Your task to perform on an android device: visit the assistant section in the google photos Image 0: 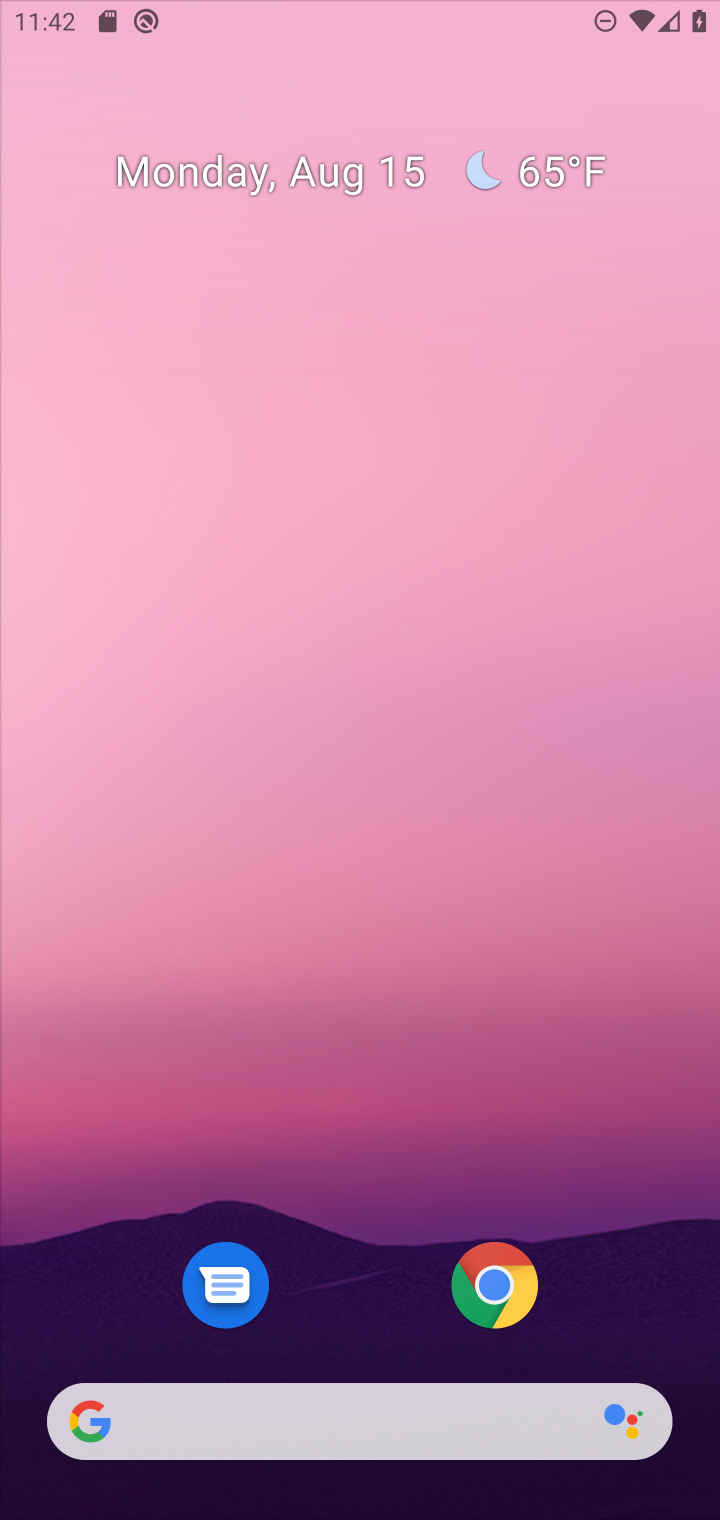
Step 0: press home button
Your task to perform on an android device: visit the assistant section in the google photos Image 1: 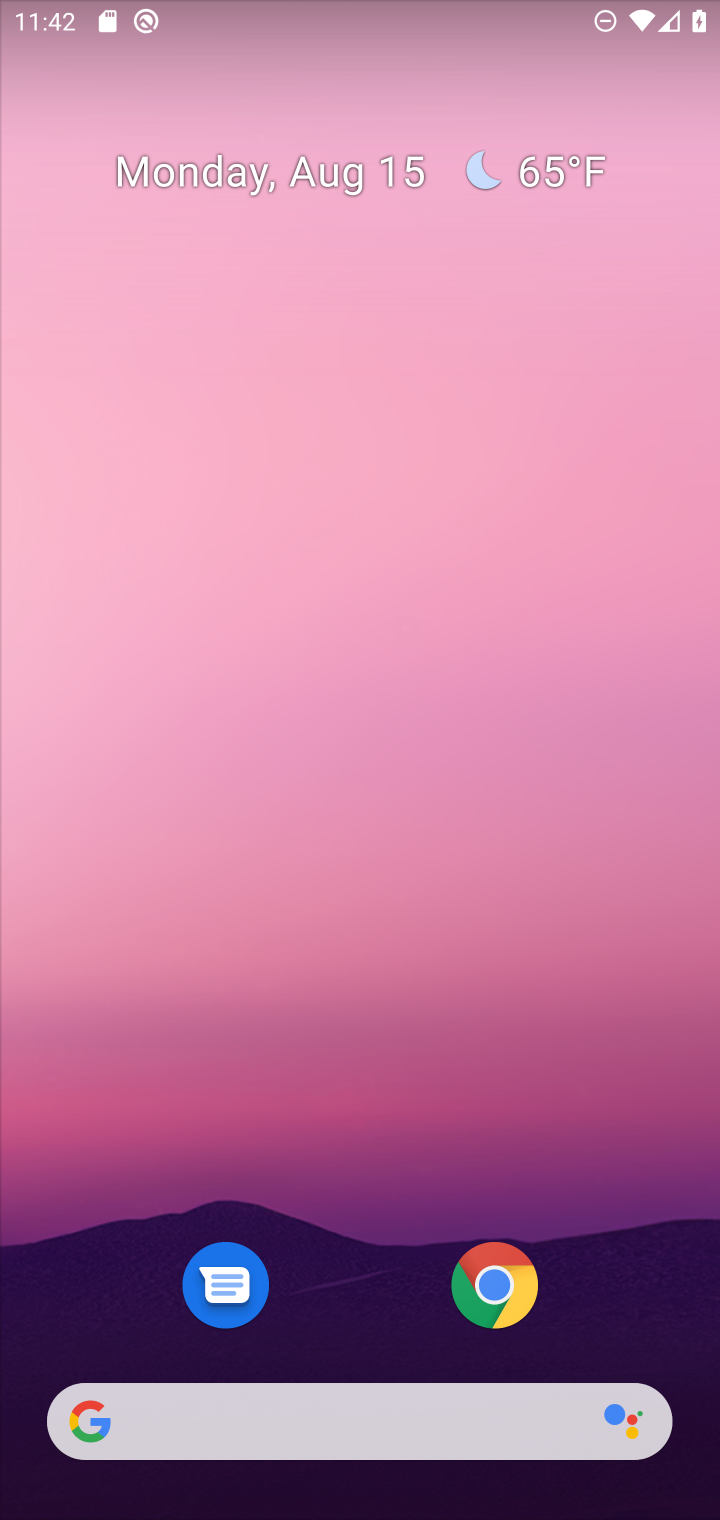
Step 1: click (445, 131)
Your task to perform on an android device: visit the assistant section in the google photos Image 2: 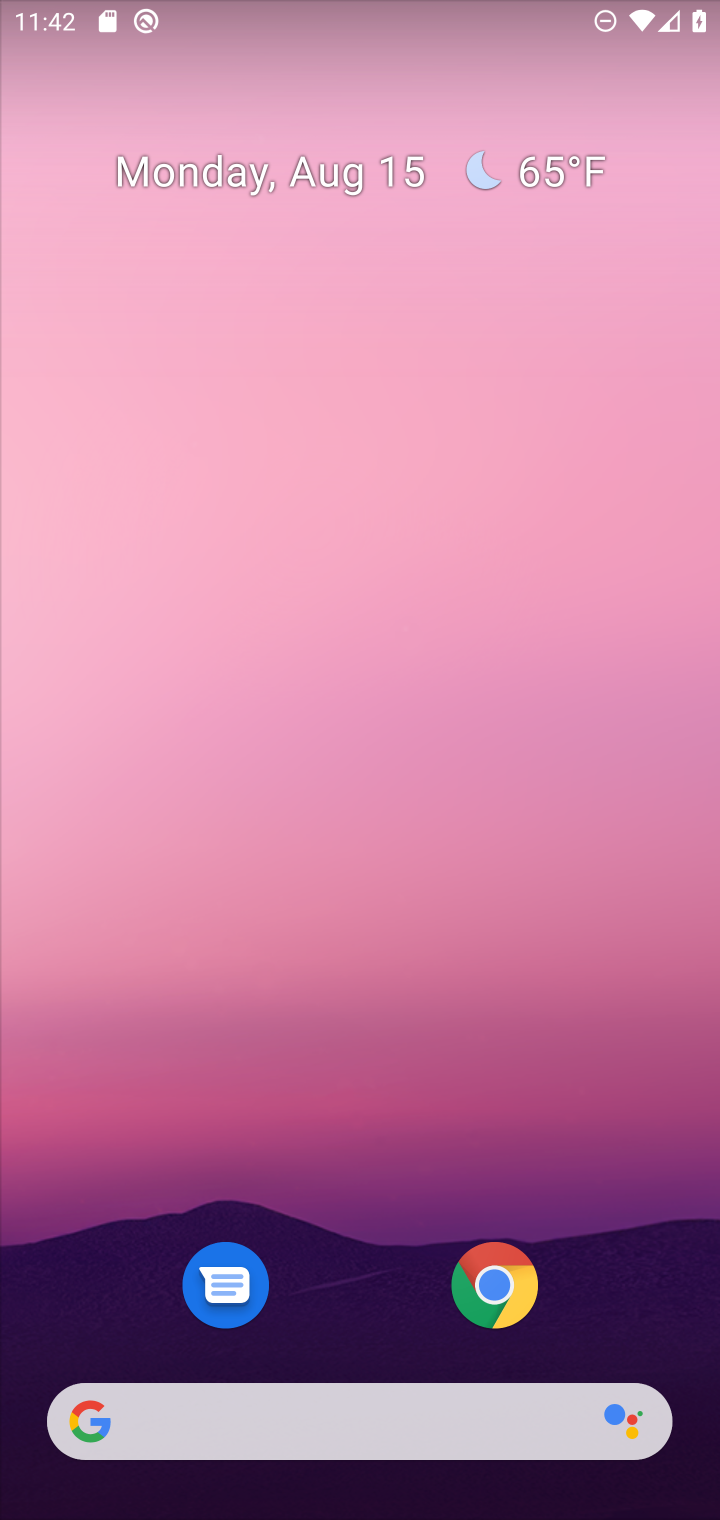
Step 2: drag from (362, 1205) to (369, 54)
Your task to perform on an android device: visit the assistant section in the google photos Image 3: 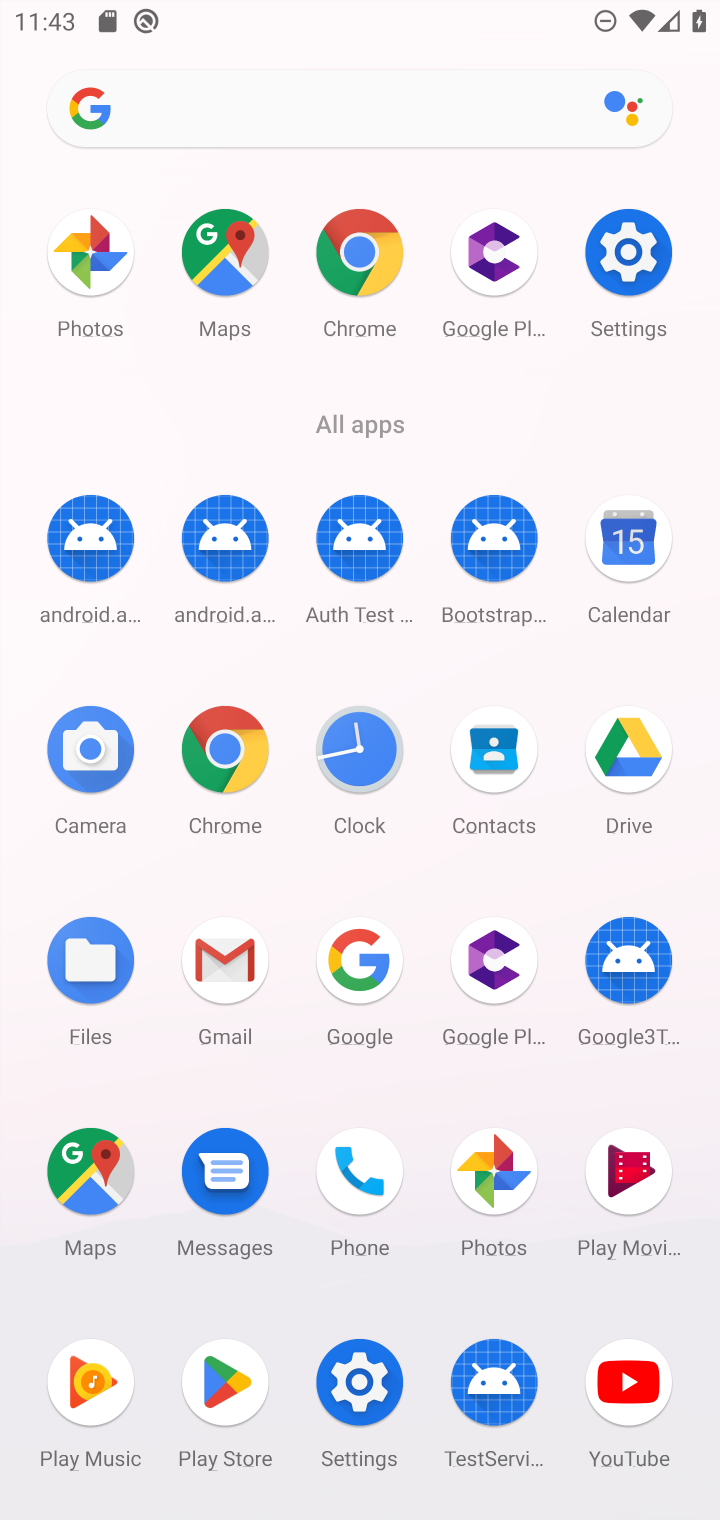
Step 3: click (489, 1157)
Your task to perform on an android device: visit the assistant section in the google photos Image 4: 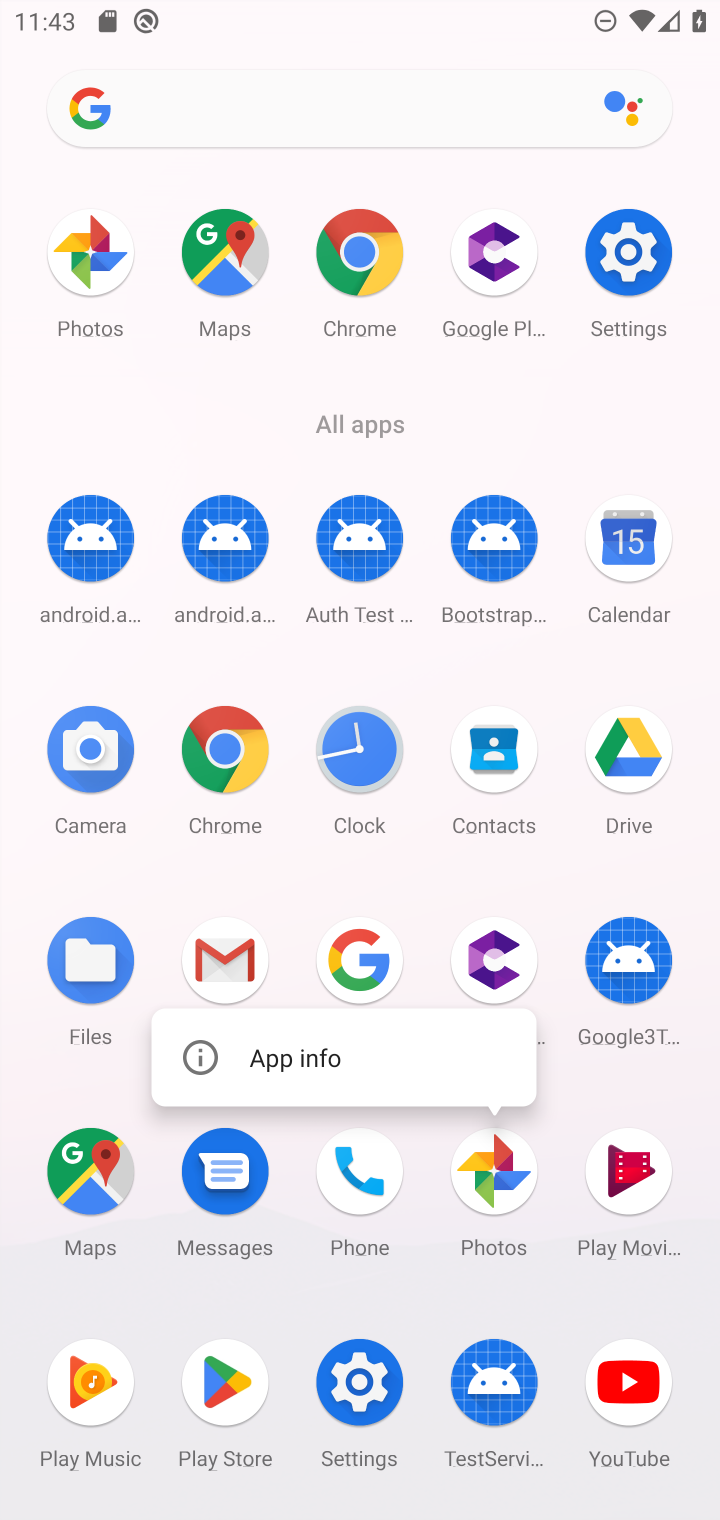
Step 4: click (485, 1158)
Your task to perform on an android device: visit the assistant section in the google photos Image 5: 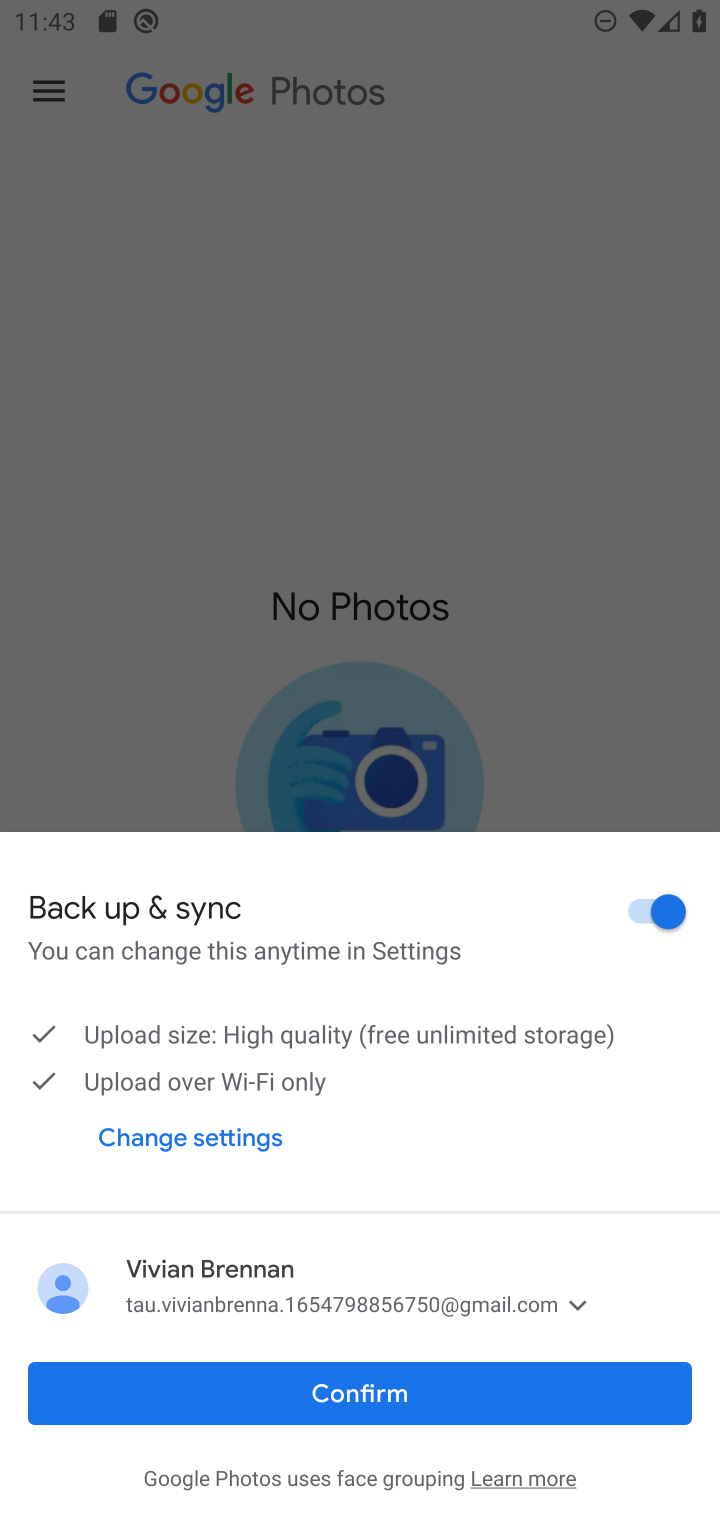
Step 5: click (358, 1390)
Your task to perform on an android device: visit the assistant section in the google photos Image 6: 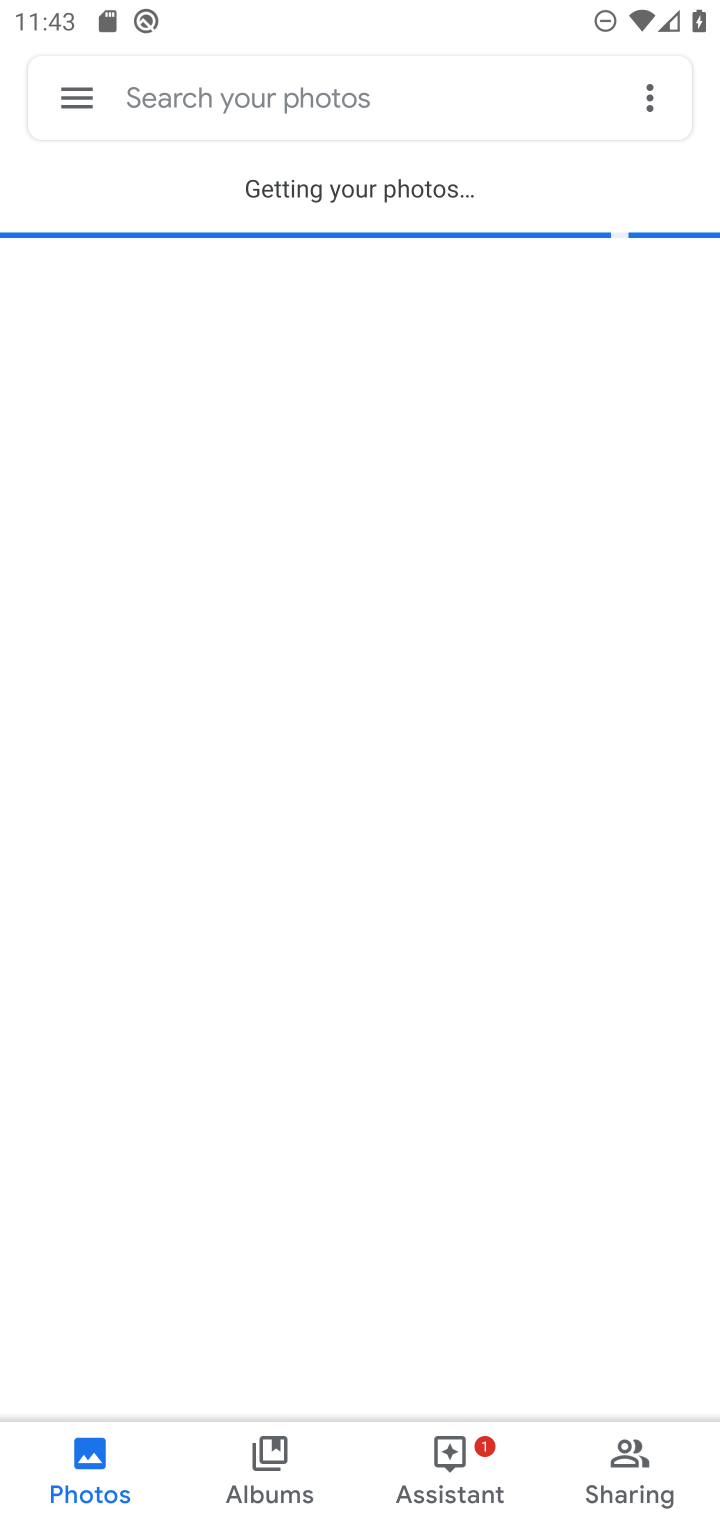
Step 6: click (446, 1448)
Your task to perform on an android device: visit the assistant section in the google photos Image 7: 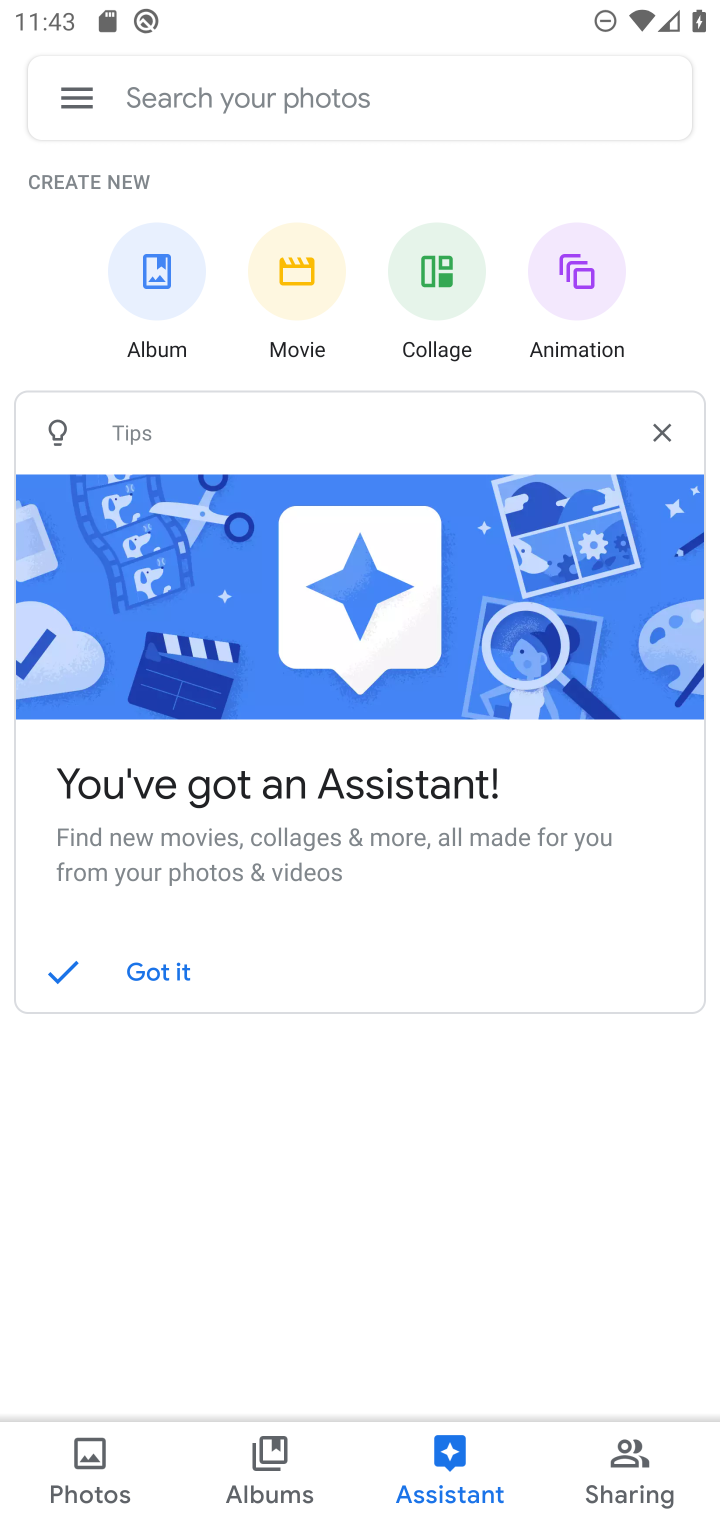
Step 7: task complete